Your task to perform on an android device: Open Reddit.com Image 0: 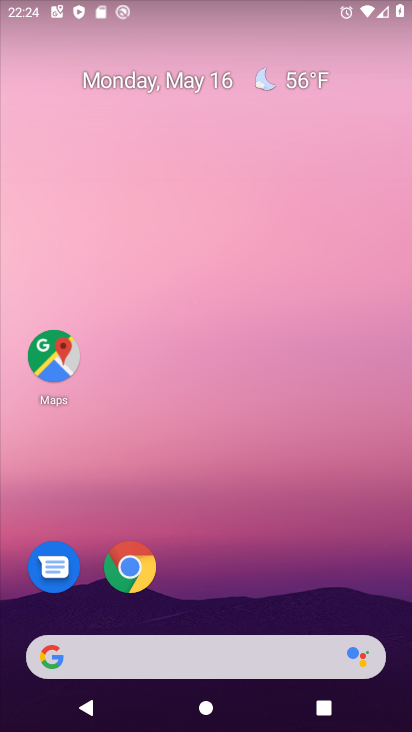
Step 0: drag from (254, 586) to (277, 143)
Your task to perform on an android device: Open Reddit.com Image 1: 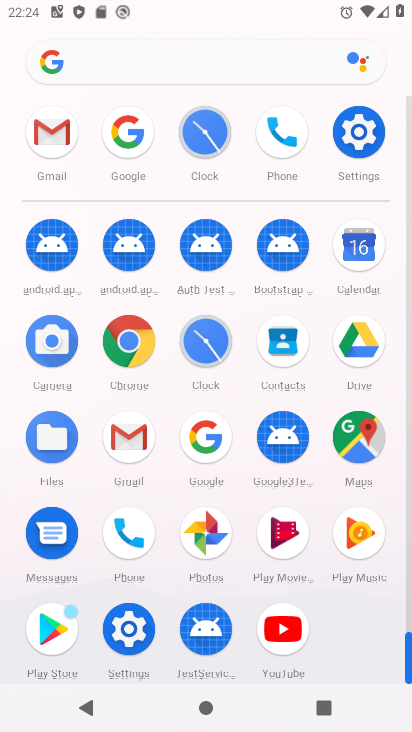
Step 1: click (125, 133)
Your task to perform on an android device: Open Reddit.com Image 2: 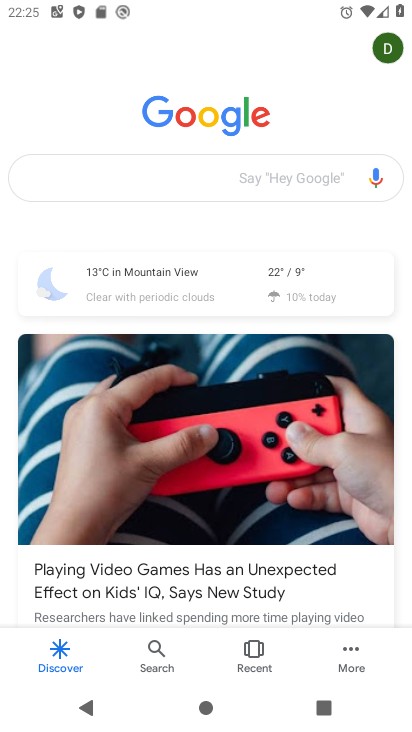
Step 2: click (228, 166)
Your task to perform on an android device: Open Reddit.com Image 3: 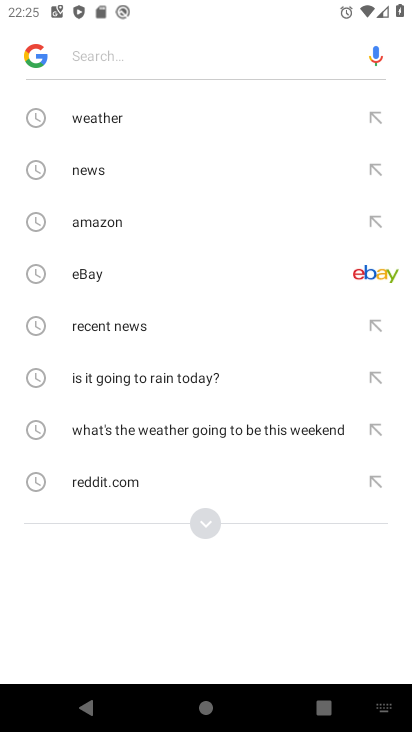
Step 3: click (105, 482)
Your task to perform on an android device: Open Reddit.com Image 4: 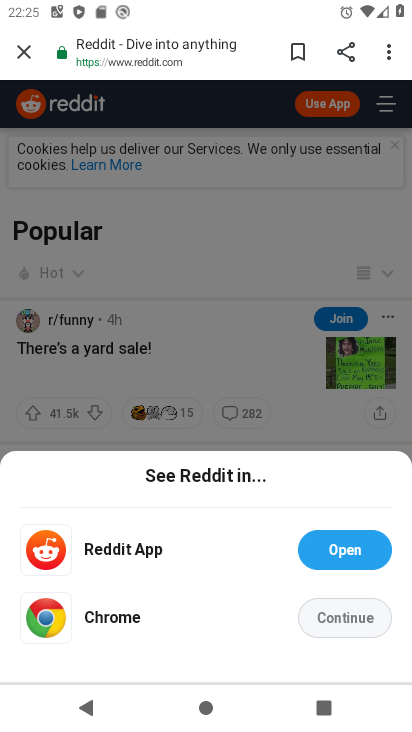
Step 4: click (325, 542)
Your task to perform on an android device: Open Reddit.com Image 5: 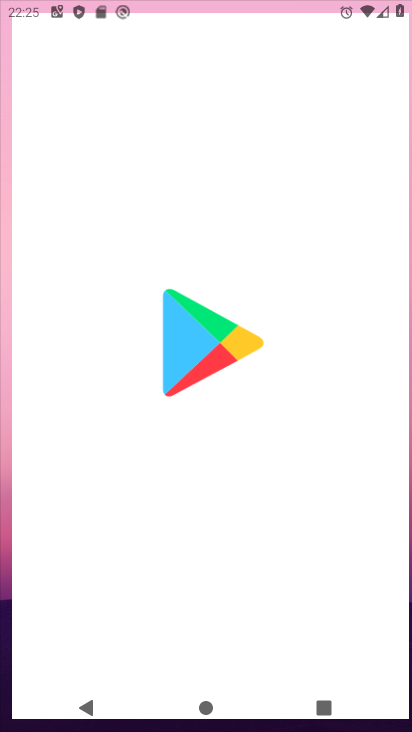
Step 5: task complete